Your task to perform on an android device: Open Google Maps Image 0: 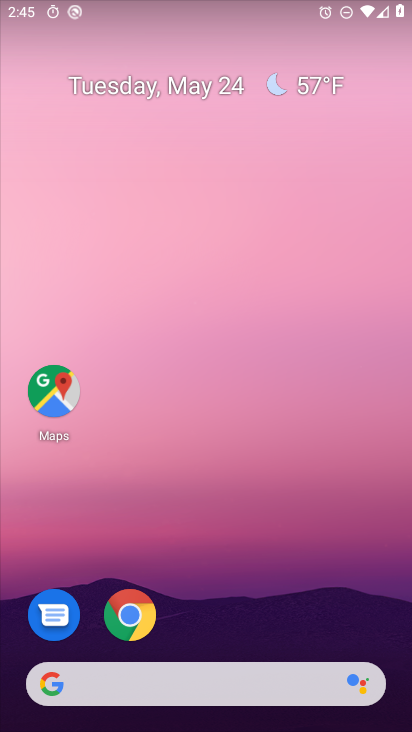
Step 0: drag from (198, 658) to (178, 238)
Your task to perform on an android device: Open Google Maps Image 1: 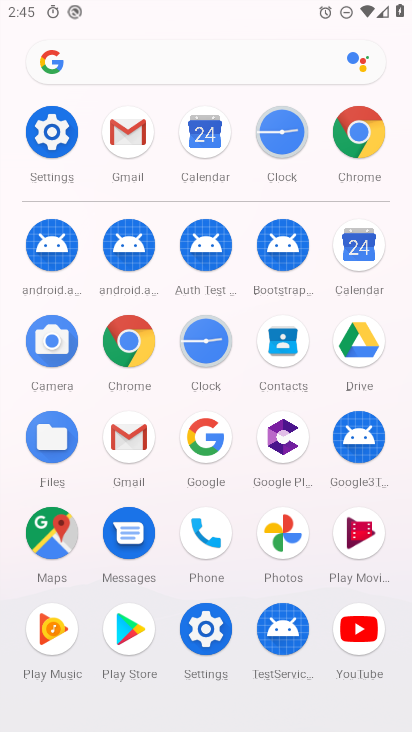
Step 1: click (39, 543)
Your task to perform on an android device: Open Google Maps Image 2: 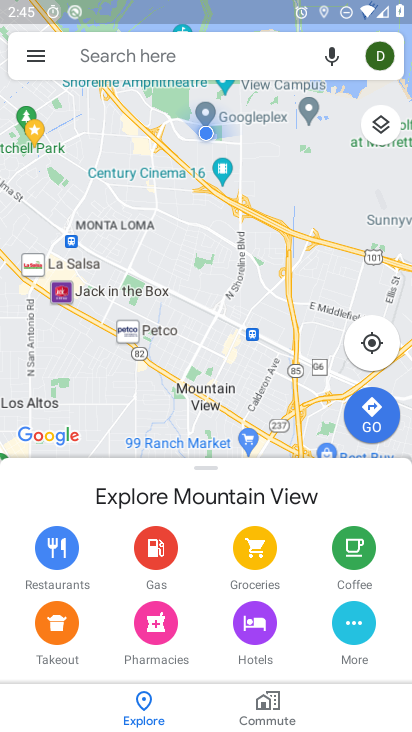
Step 2: task complete